Your task to perform on an android device: Open Google Maps Image 0: 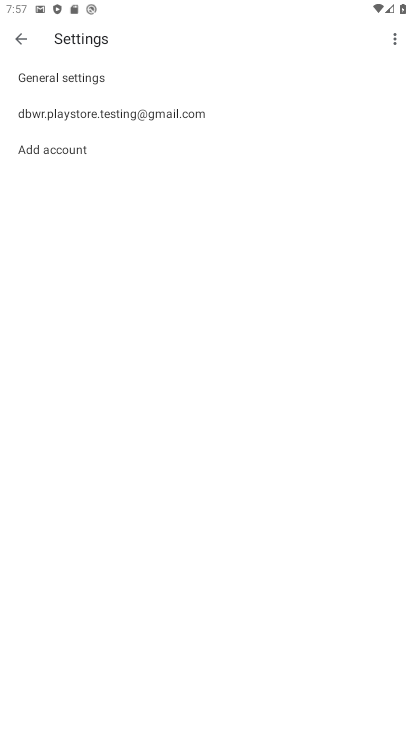
Step 0: click (312, 483)
Your task to perform on an android device: Open Google Maps Image 1: 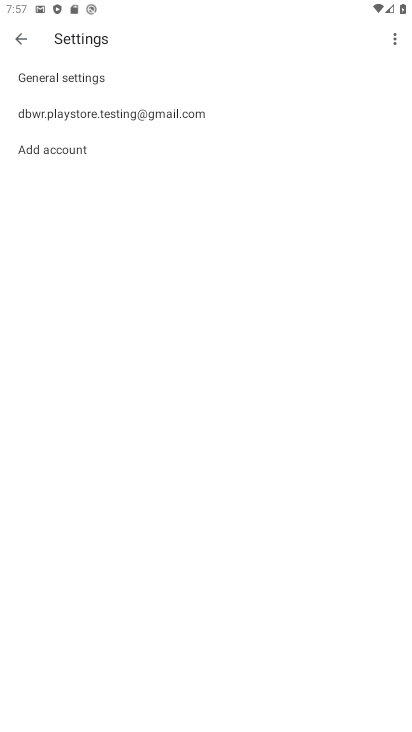
Step 1: press home button
Your task to perform on an android device: Open Google Maps Image 2: 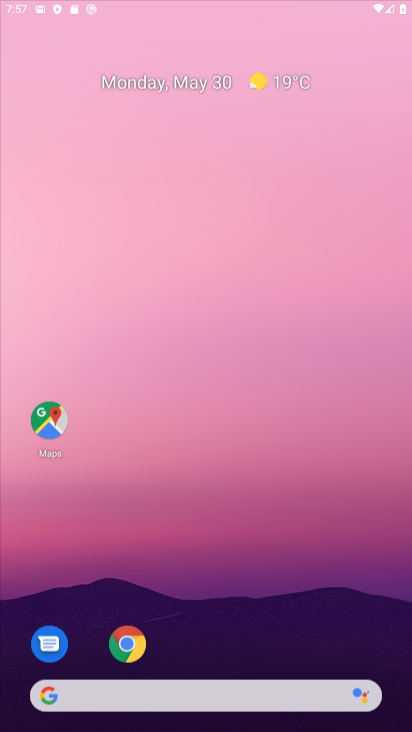
Step 2: drag from (204, 633) to (339, 171)
Your task to perform on an android device: Open Google Maps Image 3: 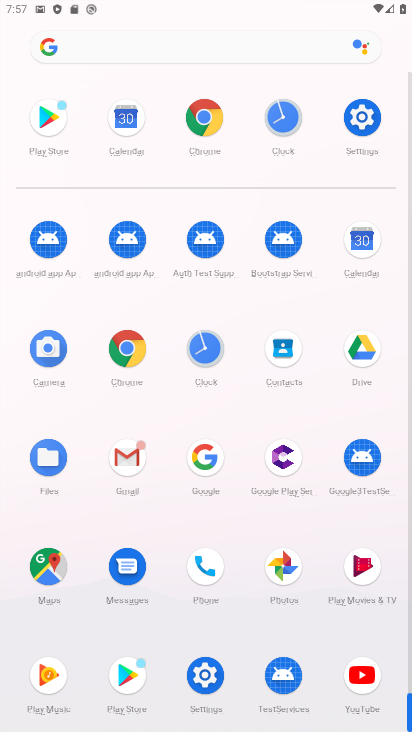
Step 3: click (49, 559)
Your task to perform on an android device: Open Google Maps Image 4: 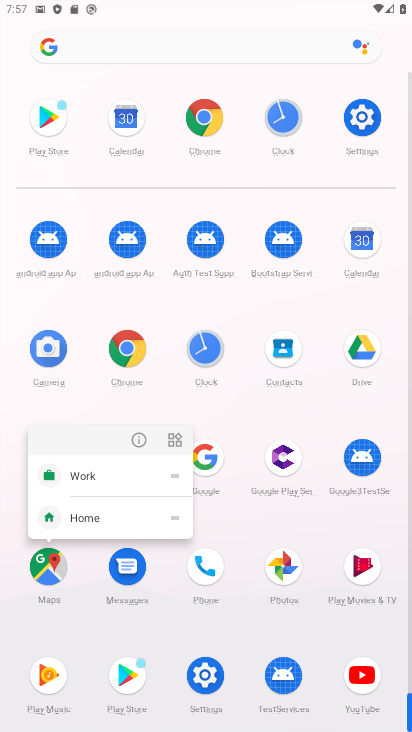
Step 4: click (141, 435)
Your task to perform on an android device: Open Google Maps Image 5: 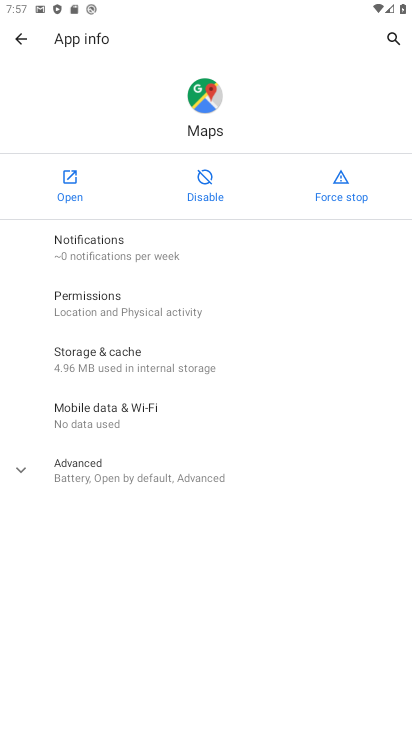
Step 5: click (54, 180)
Your task to perform on an android device: Open Google Maps Image 6: 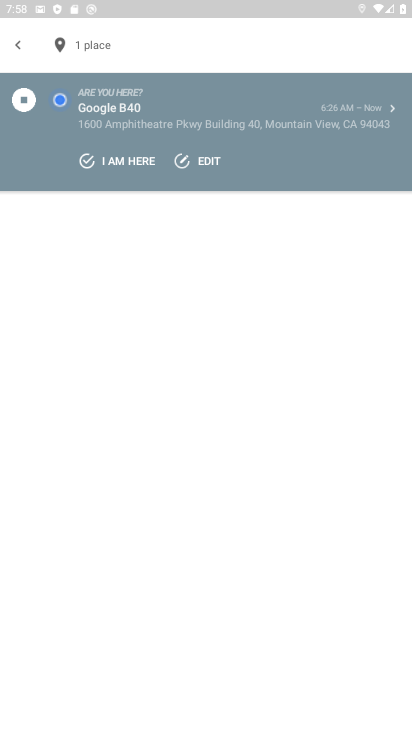
Step 6: task complete